Your task to perform on an android device: manage bookmarks in the chrome app Image 0: 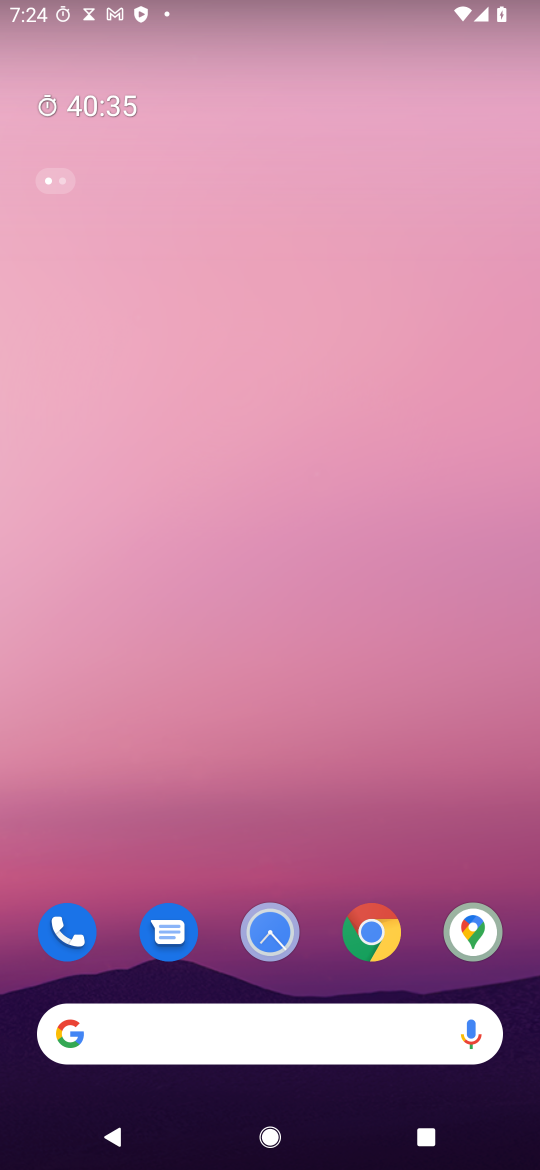
Step 0: drag from (313, 803) to (163, 19)
Your task to perform on an android device: manage bookmarks in the chrome app Image 1: 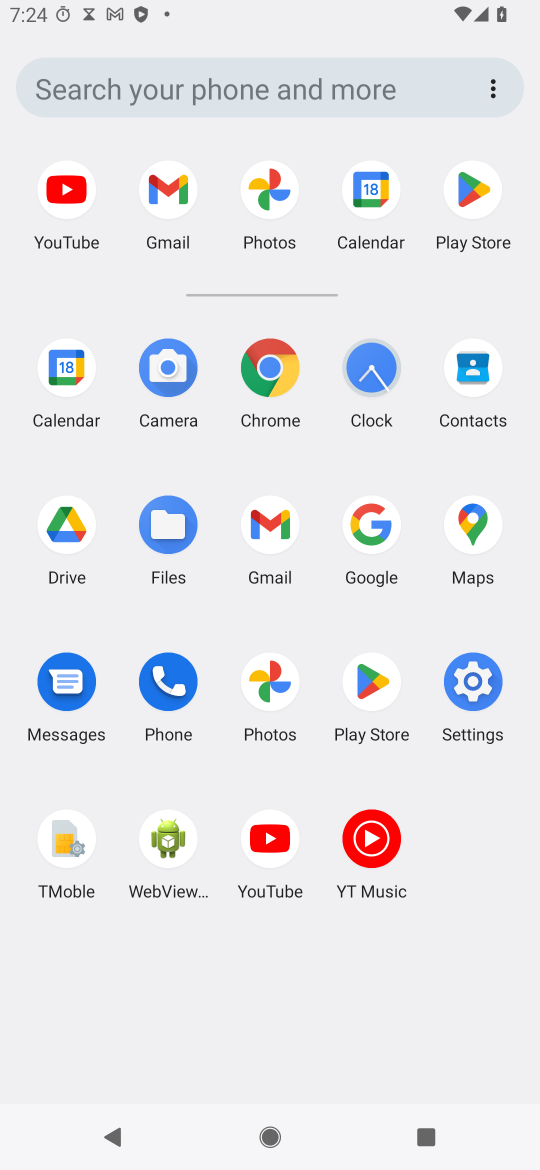
Step 1: click (270, 365)
Your task to perform on an android device: manage bookmarks in the chrome app Image 2: 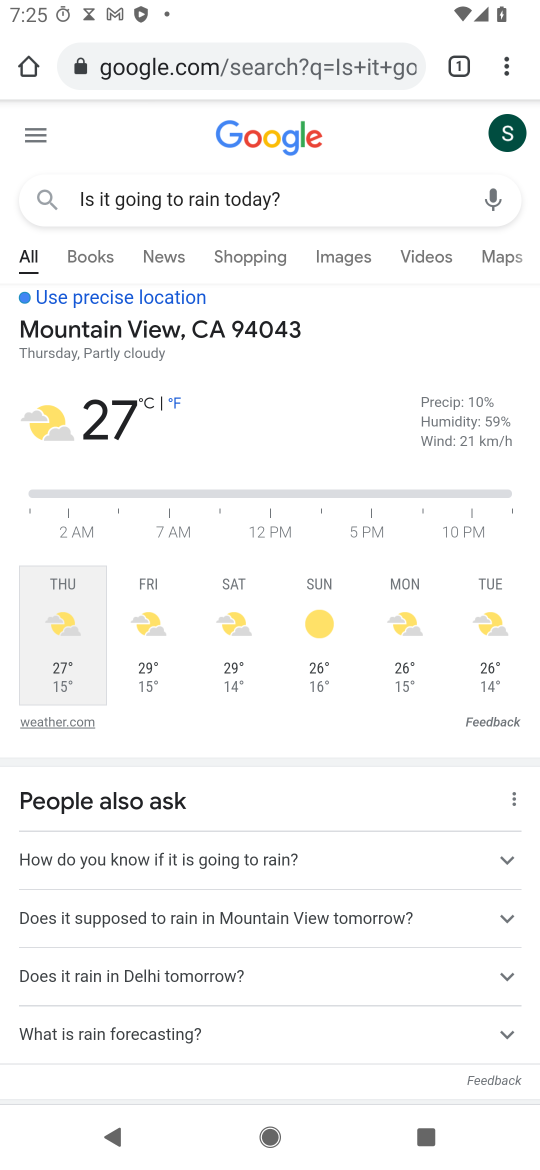
Step 2: click (507, 63)
Your task to perform on an android device: manage bookmarks in the chrome app Image 3: 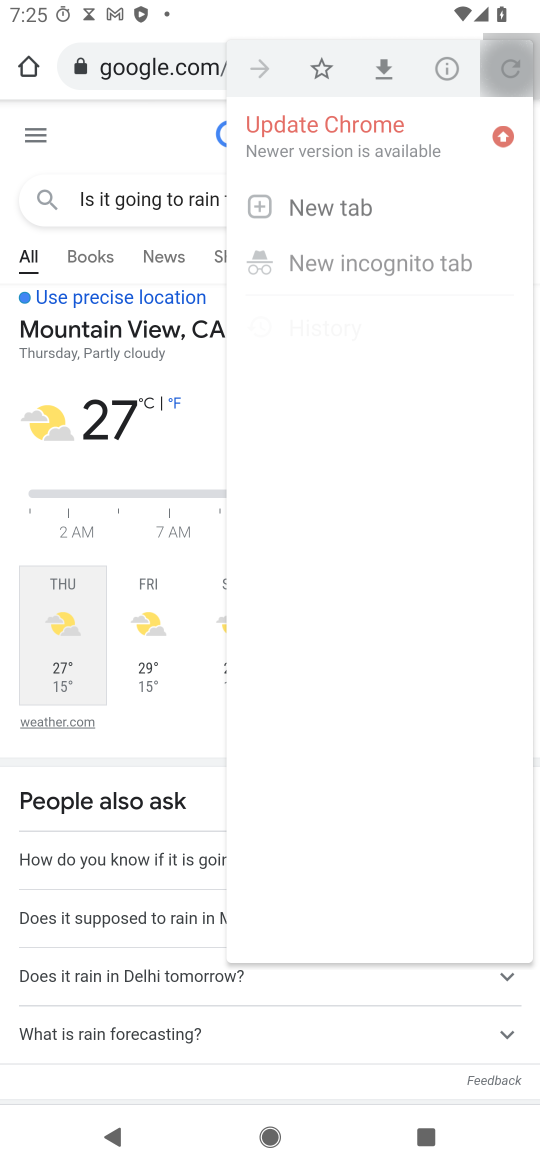
Step 3: task complete